Your task to perform on an android device: create a new album in the google photos Image 0: 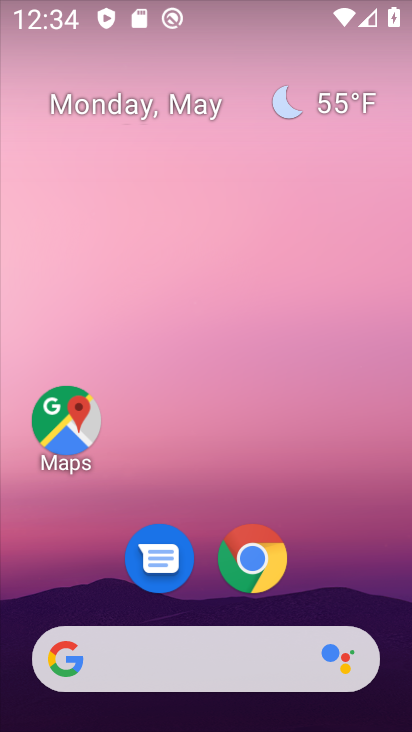
Step 0: drag from (361, 553) to (264, 24)
Your task to perform on an android device: create a new album in the google photos Image 1: 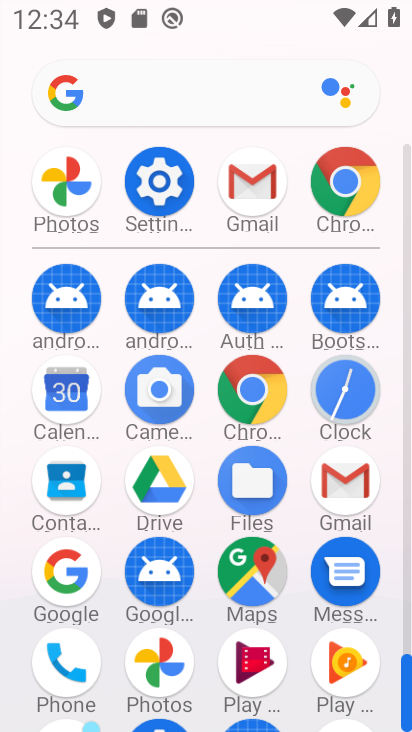
Step 1: drag from (26, 535) to (26, 221)
Your task to perform on an android device: create a new album in the google photos Image 2: 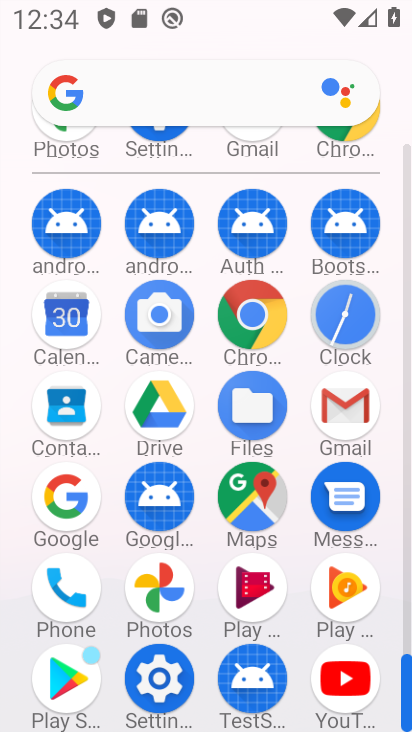
Step 2: click (158, 581)
Your task to perform on an android device: create a new album in the google photos Image 3: 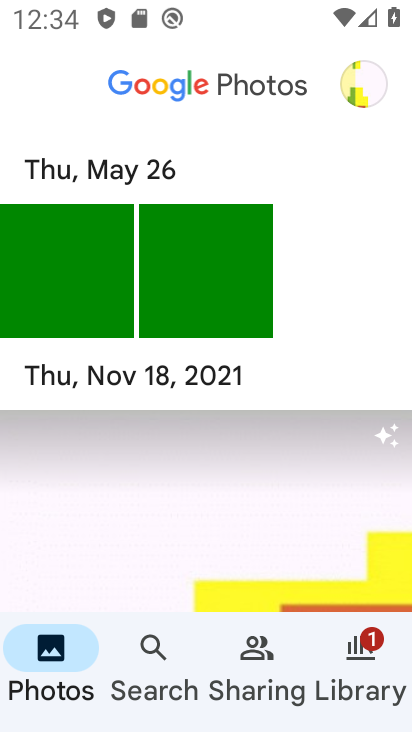
Step 3: click (206, 235)
Your task to perform on an android device: create a new album in the google photos Image 4: 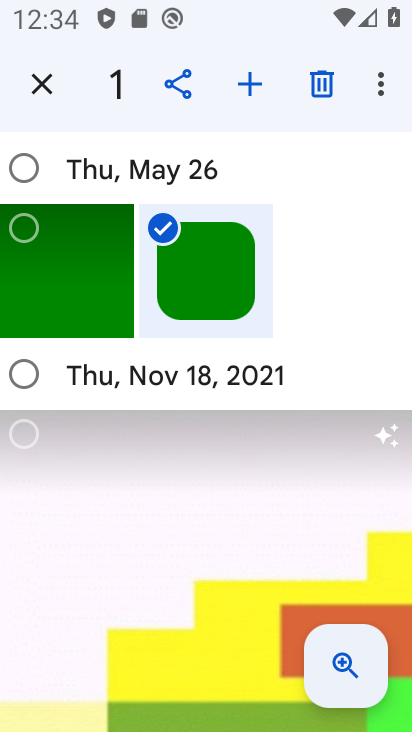
Step 4: click (254, 77)
Your task to perform on an android device: create a new album in the google photos Image 5: 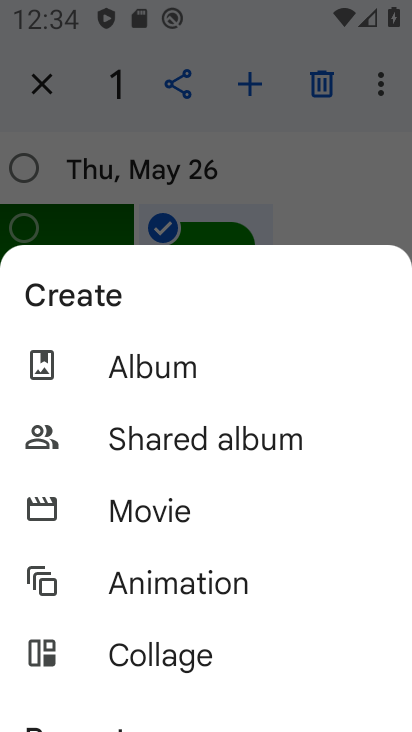
Step 5: click (164, 367)
Your task to perform on an android device: create a new album in the google photos Image 6: 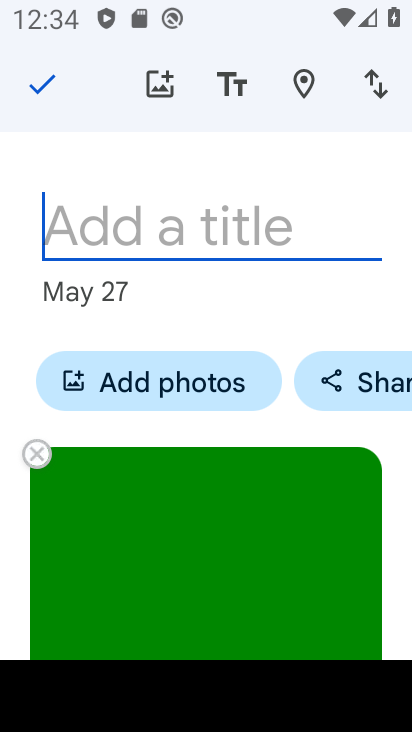
Step 6: type "ddhhy"
Your task to perform on an android device: create a new album in the google photos Image 7: 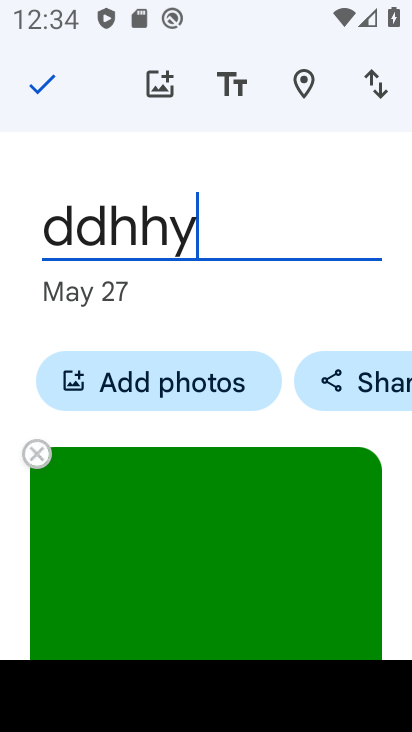
Step 7: type ""
Your task to perform on an android device: create a new album in the google photos Image 8: 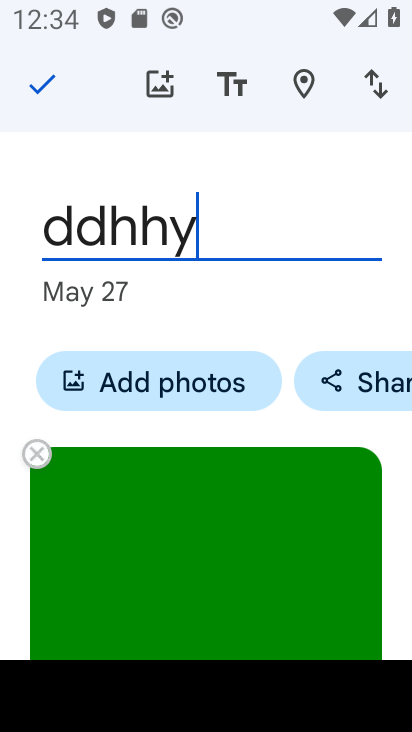
Step 8: click (48, 85)
Your task to perform on an android device: create a new album in the google photos Image 9: 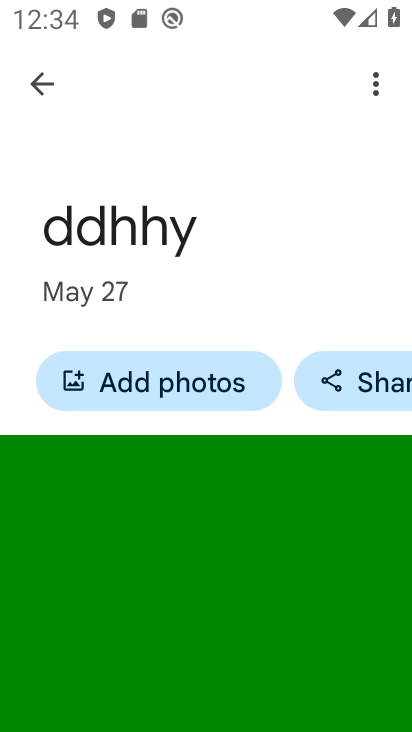
Step 9: task complete